Your task to perform on an android device: turn on improve location accuracy Image 0: 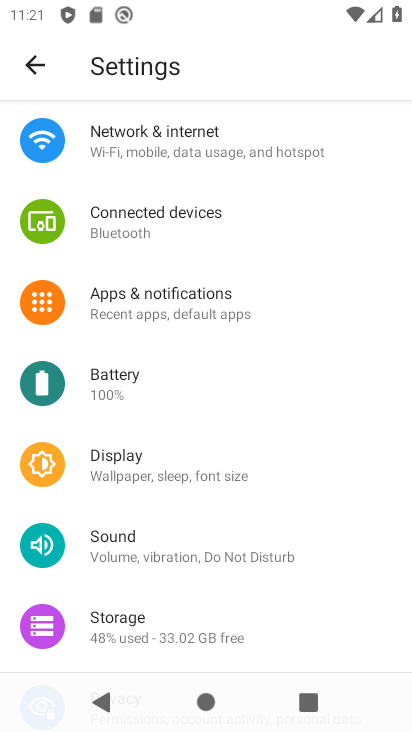
Step 0: drag from (173, 610) to (293, 12)
Your task to perform on an android device: turn on improve location accuracy Image 1: 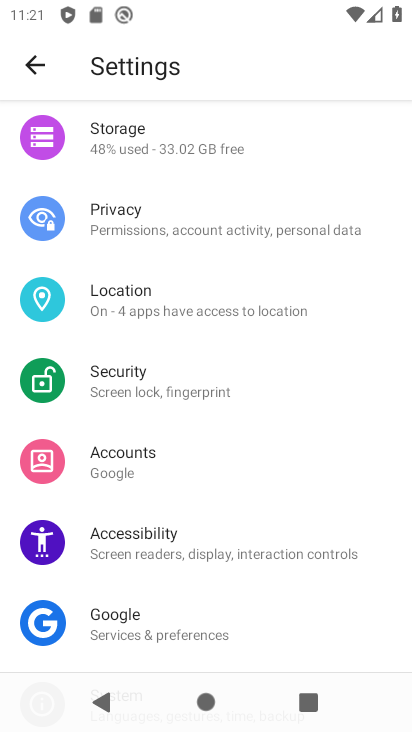
Step 1: click (103, 306)
Your task to perform on an android device: turn on improve location accuracy Image 2: 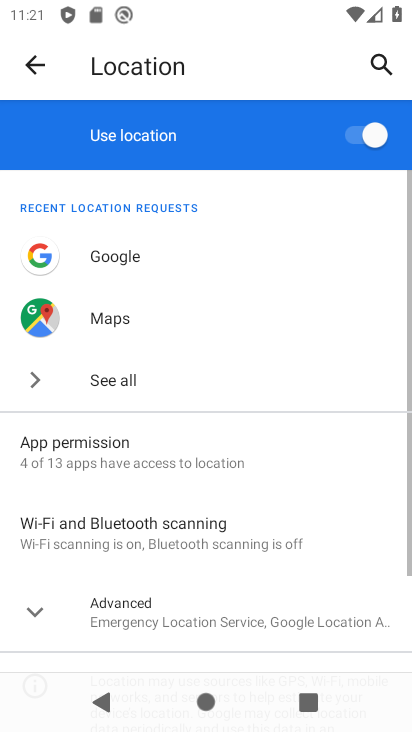
Step 2: click (149, 612)
Your task to perform on an android device: turn on improve location accuracy Image 3: 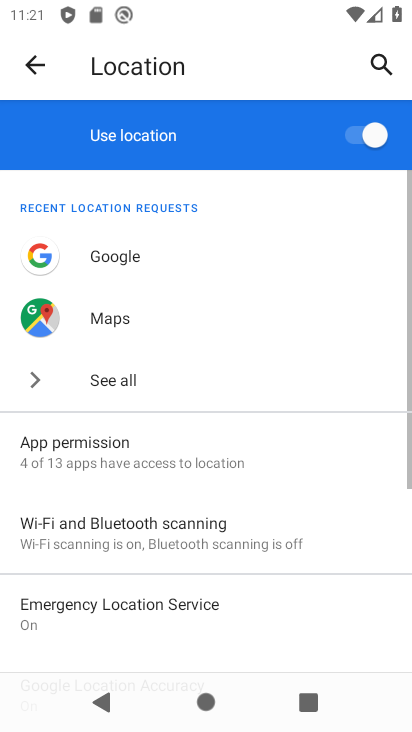
Step 3: drag from (182, 569) to (260, 107)
Your task to perform on an android device: turn on improve location accuracy Image 4: 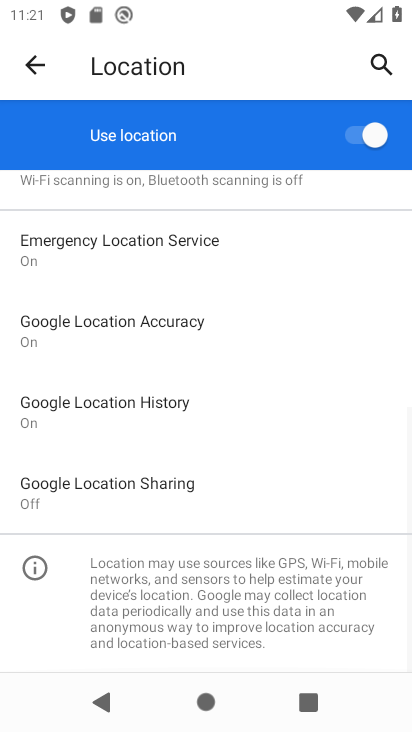
Step 4: click (103, 324)
Your task to perform on an android device: turn on improve location accuracy Image 5: 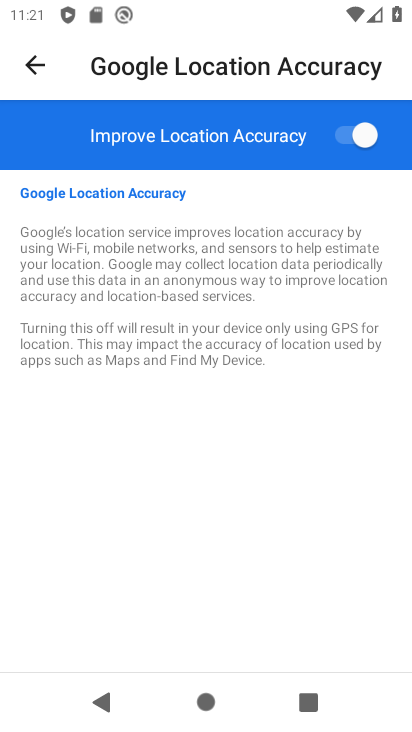
Step 5: task complete